Your task to perform on an android device: Go to ESPN.com Image 0: 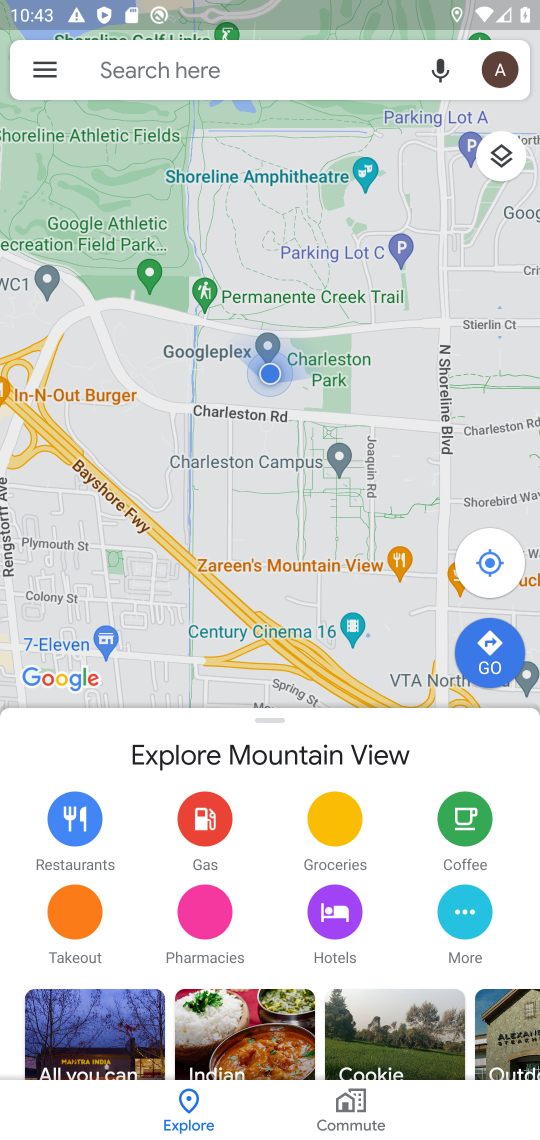
Step 0: press home button
Your task to perform on an android device: Go to ESPN.com Image 1: 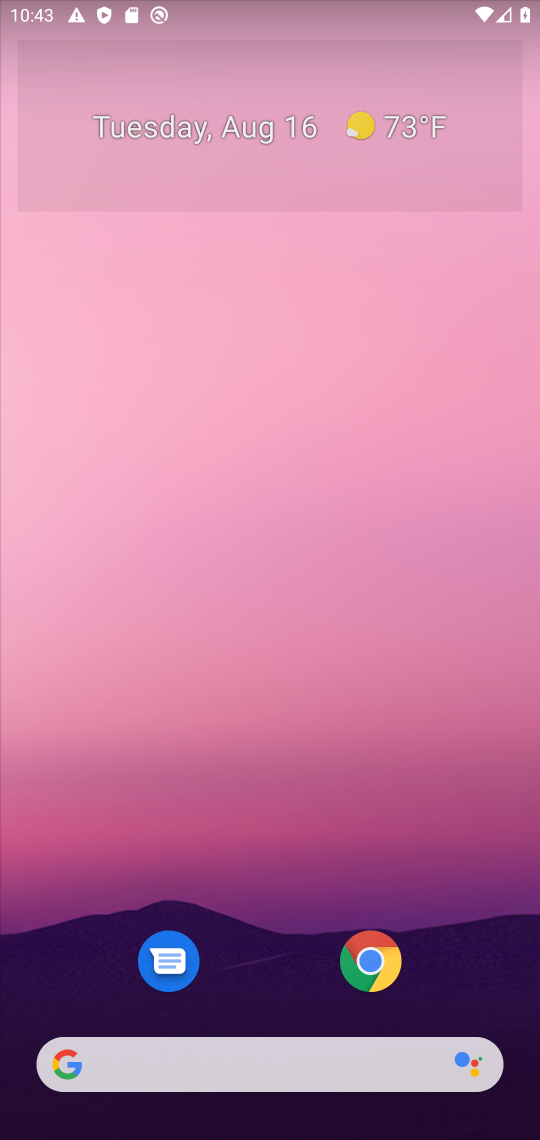
Step 1: click (246, 1075)
Your task to perform on an android device: Go to ESPN.com Image 2: 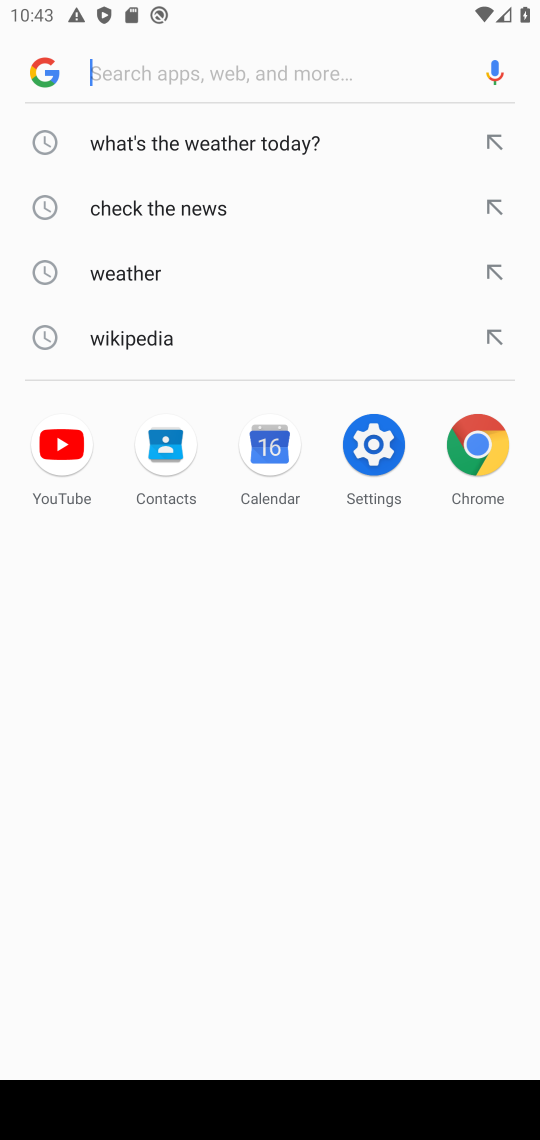
Step 2: type "ESPN.com"
Your task to perform on an android device: Go to ESPN.com Image 3: 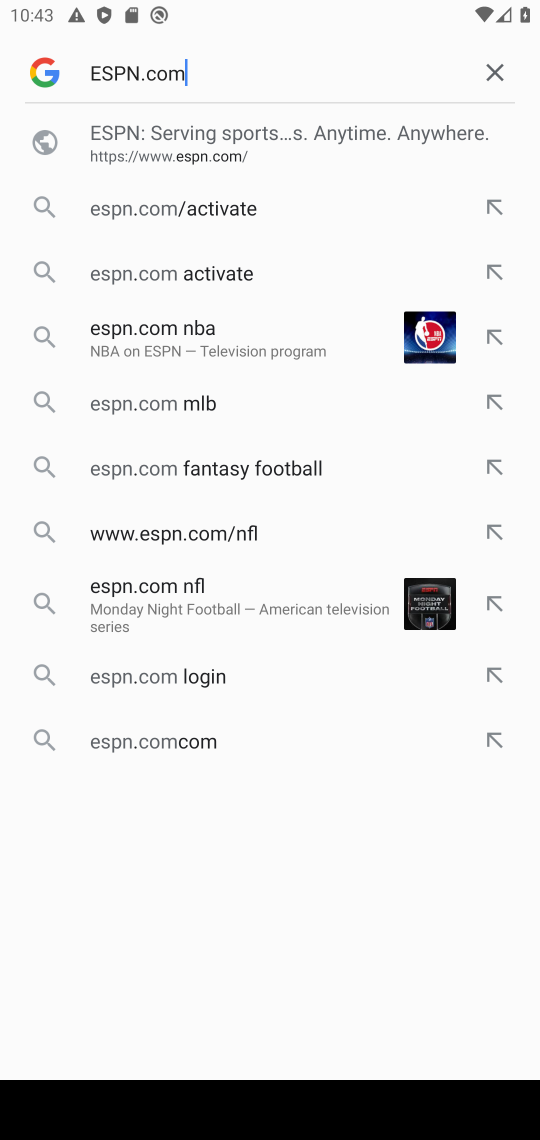
Step 3: press enter
Your task to perform on an android device: Go to ESPN.com Image 4: 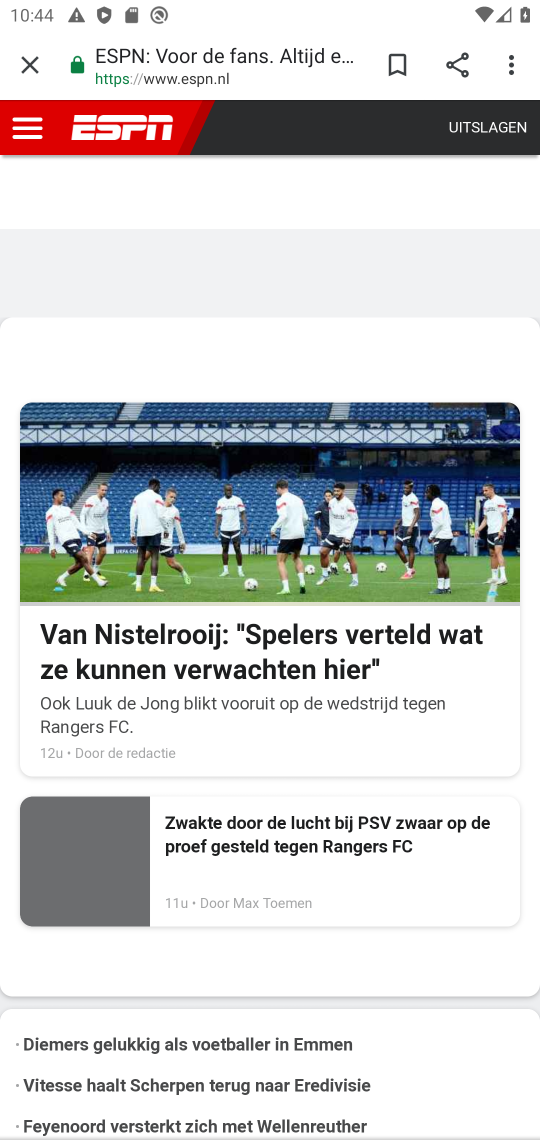
Step 4: task complete